Your task to perform on an android device: Go to Maps Image 0: 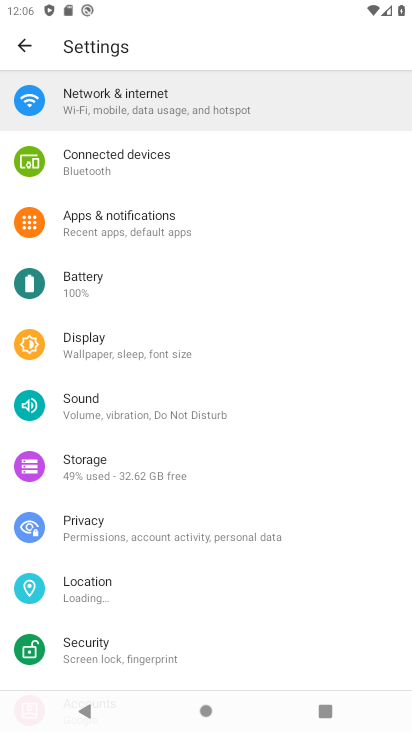
Step 0: press home button
Your task to perform on an android device: Go to Maps Image 1: 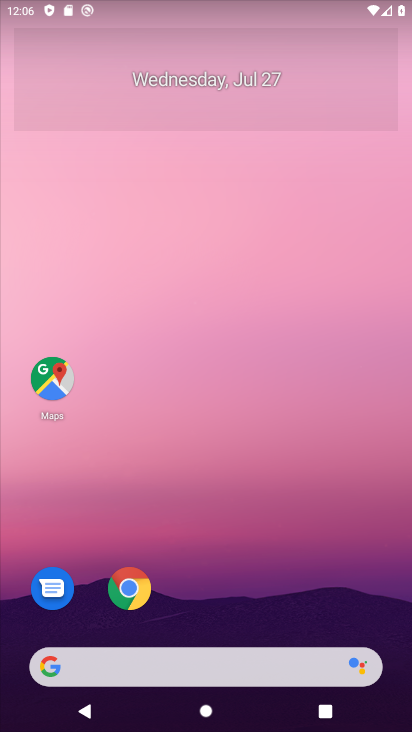
Step 1: click (58, 377)
Your task to perform on an android device: Go to Maps Image 2: 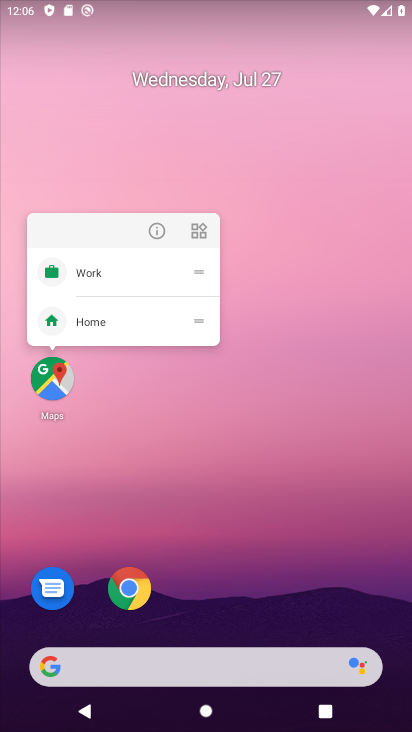
Step 2: click (58, 387)
Your task to perform on an android device: Go to Maps Image 3: 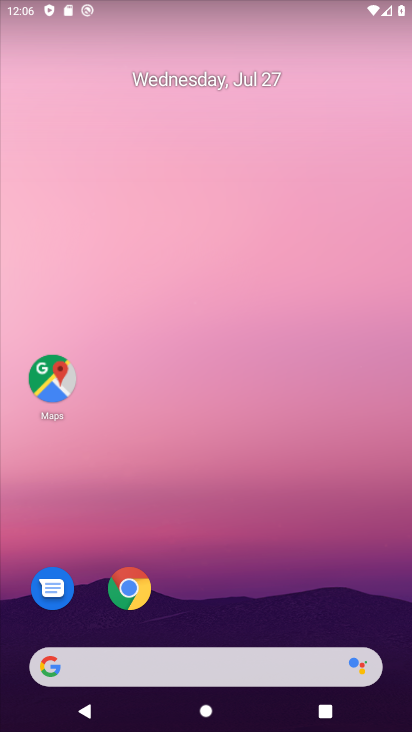
Step 3: click (44, 386)
Your task to perform on an android device: Go to Maps Image 4: 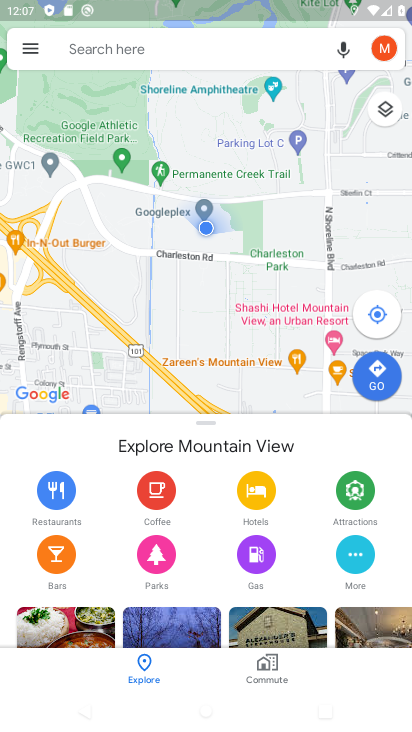
Step 4: task complete